Your task to perform on an android device: Go to Google Image 0: 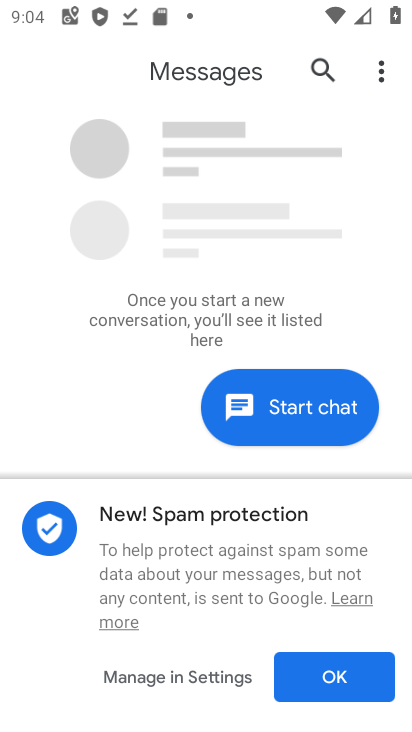
Step 0: press back button
Your task to perform on an android device: Go to Google Image 1: 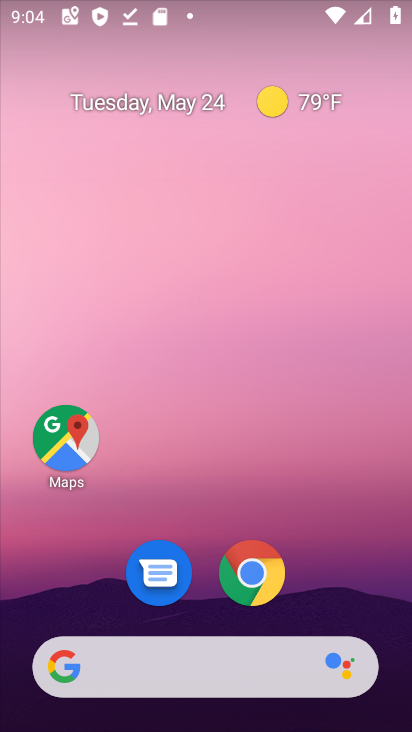
Step 1: drag from (370, 654) to (223, 101)
Your task to perform on an android device: Go to Google Image 2: 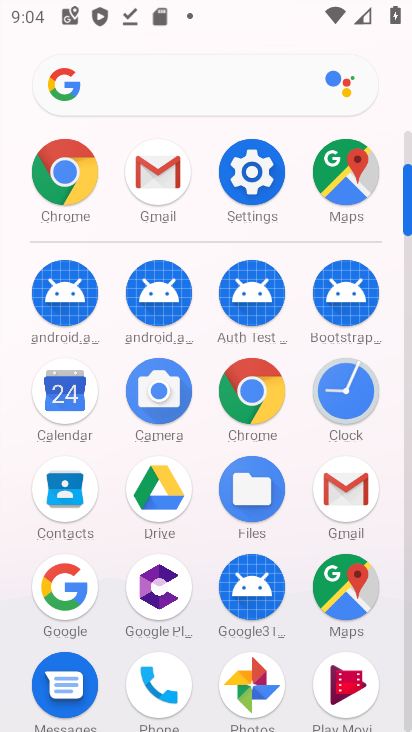
Step 2: click (79, 583)
Your task to perform on an android device: Go to Google Image 3: 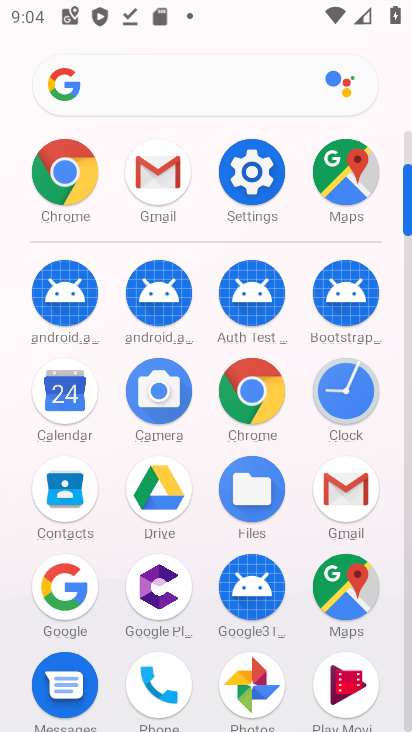
Step 3: task complete